Your task to perform on an android device: toggle wifi Image 0: 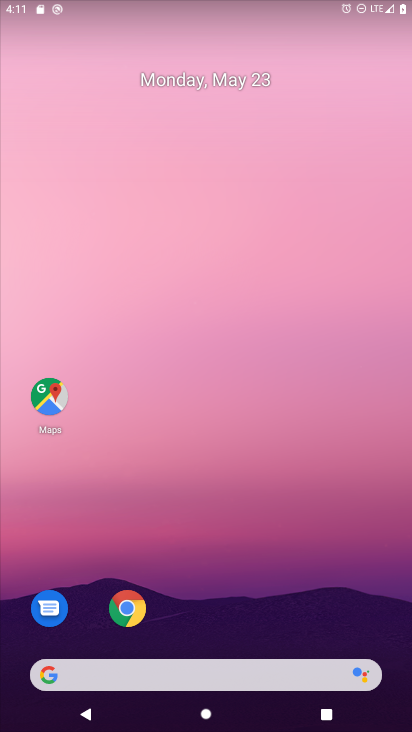
Step 0: drag from (243, 613) to (214, 115)
Your task to perform on an android device: toggle wifi Image 1: 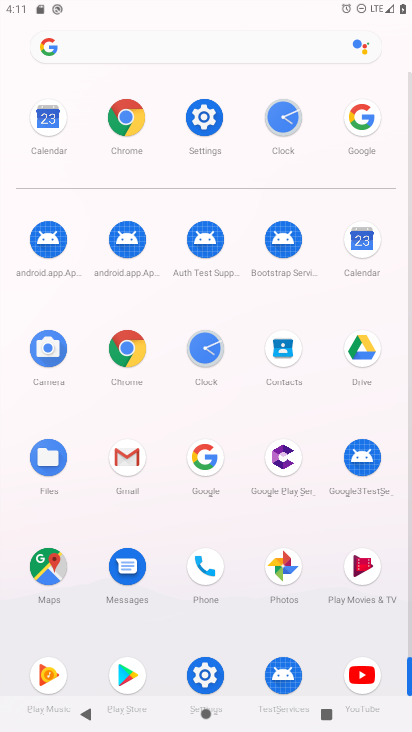
Step 1: click (208, 675)
Your task to perform on an android device: toggle wifi Image 2: 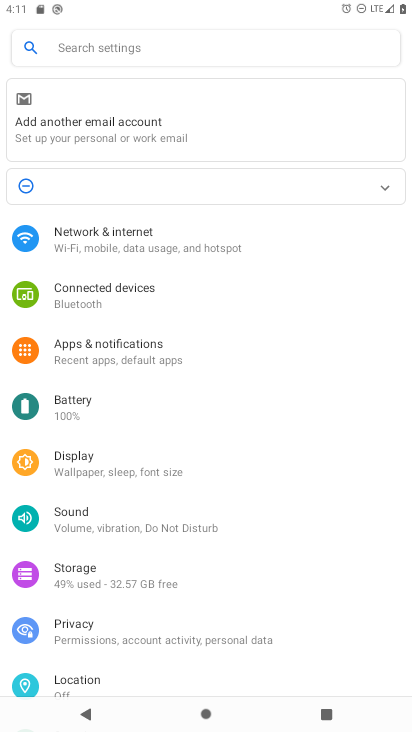
Step 2: click (117, 244)
Your task to perform on an android device: toggle wifi Image 3: 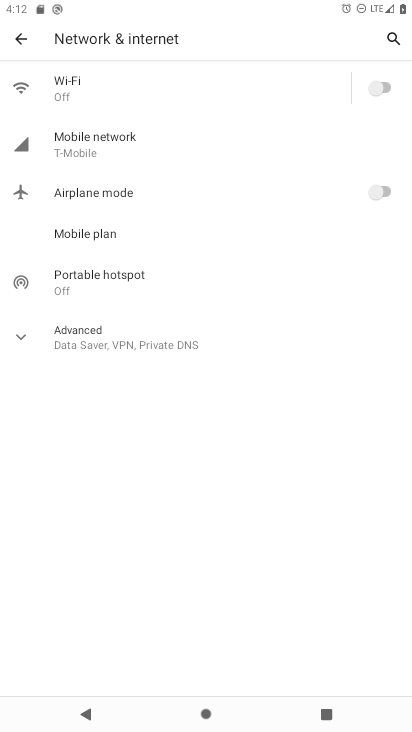
Step 3: click (374, 91)
Your task to perform on an android device: toggle wifi Image 4: 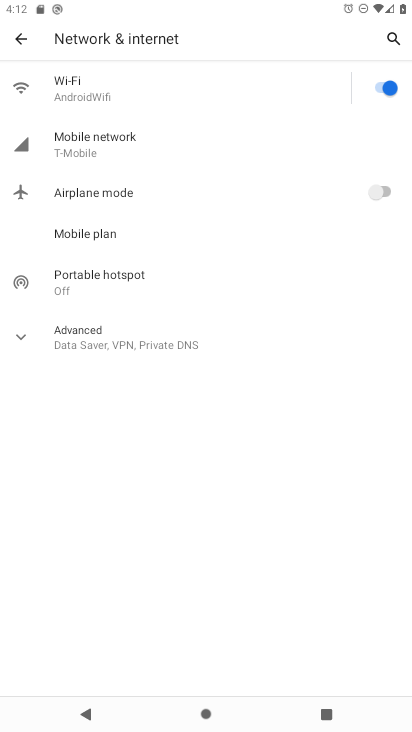
Step 4: task complete